Your task to perform on an android device: turn off location Image 0: 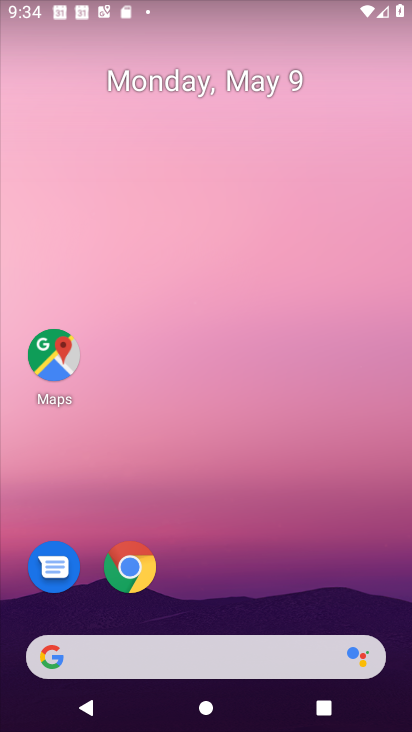
Step 0: drag from (205, 616) to (269, 192)
Your task to perform on an android device: turn off location Image 1: 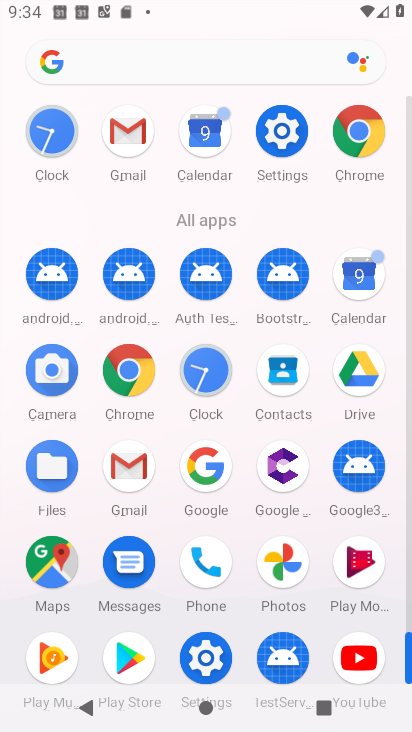
Step 1: click (268, 144)
Your task to perform on an android device: turn off location Image 2: 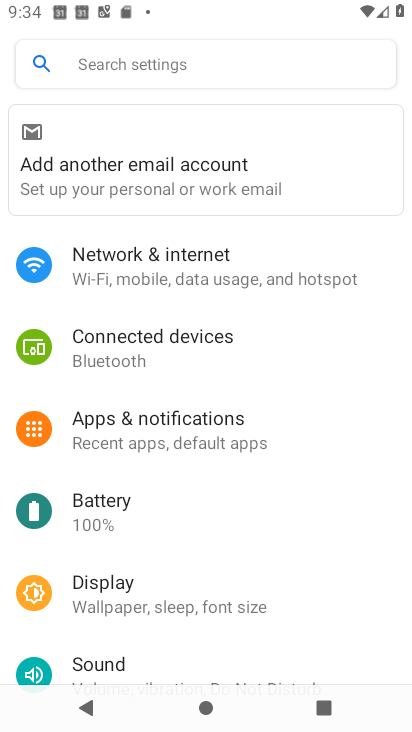
Step 2: drag from (220, 552) to (324, 79)
Your task to perform on an android device: turn off location Image 3: 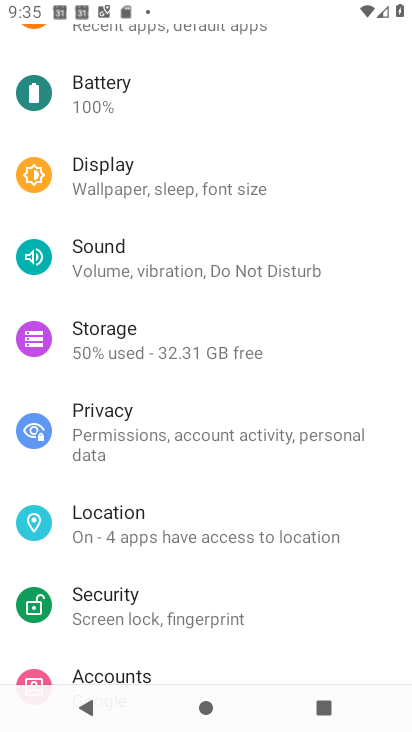
Step 3: click (124, 518)
Your task to perform on an android device: turn off location Image 4: 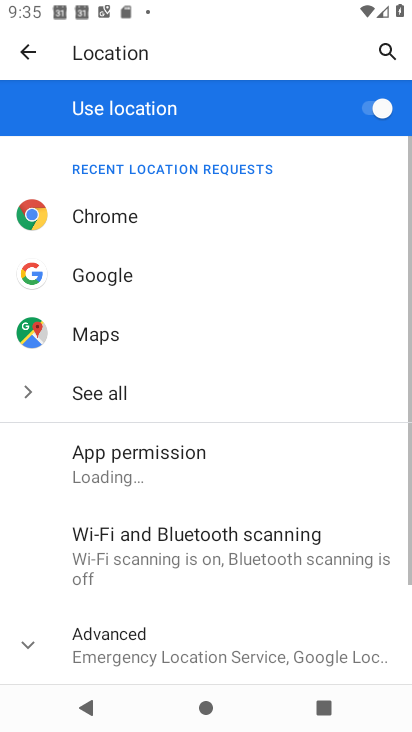
Step 4: click (358, 119)
Your task to perform on an android device: turn off location Image 5: 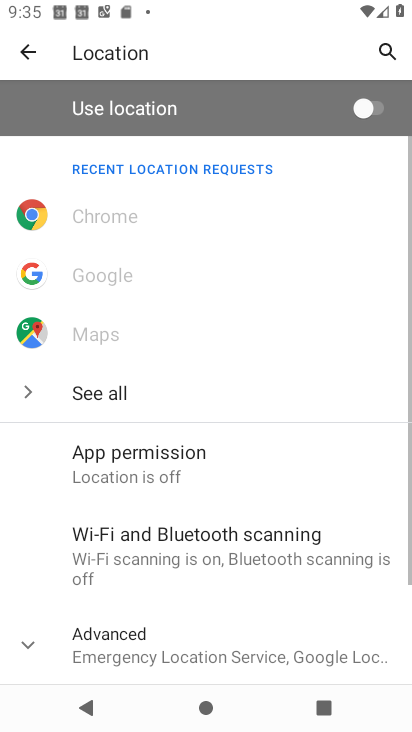
Step 5: task complete